Your task to perform on an android device: Open Google Image 0: 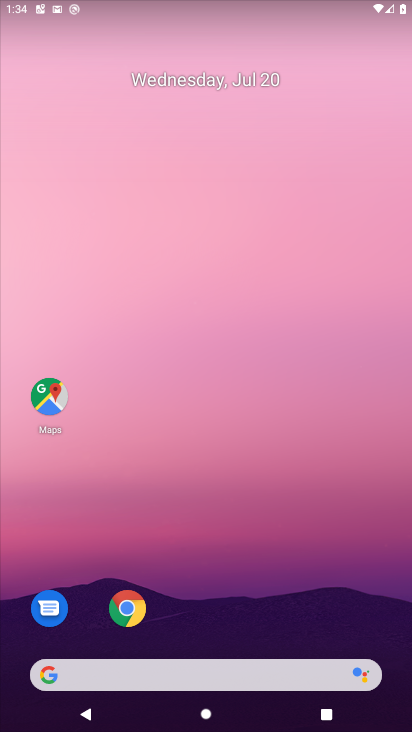
Step 0: drag from (201, 669) to (198, 258)
Your task to perform on an android device: Open Google Image 1: 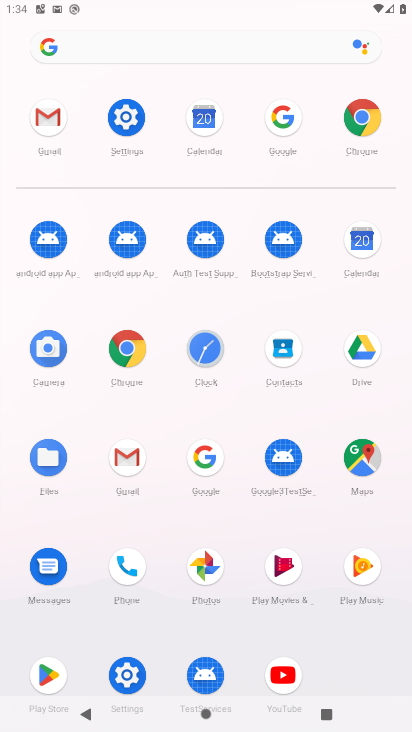
Step 1: click (198, 465)
Your task to perform on an android device: Open Google Image 2: 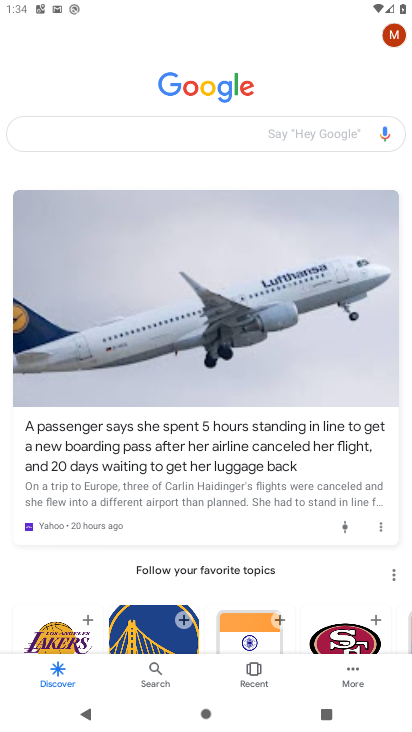
Step 2: task complete